Your task to perform on an android device: turn on priority inbox in the gmail app Image 0: 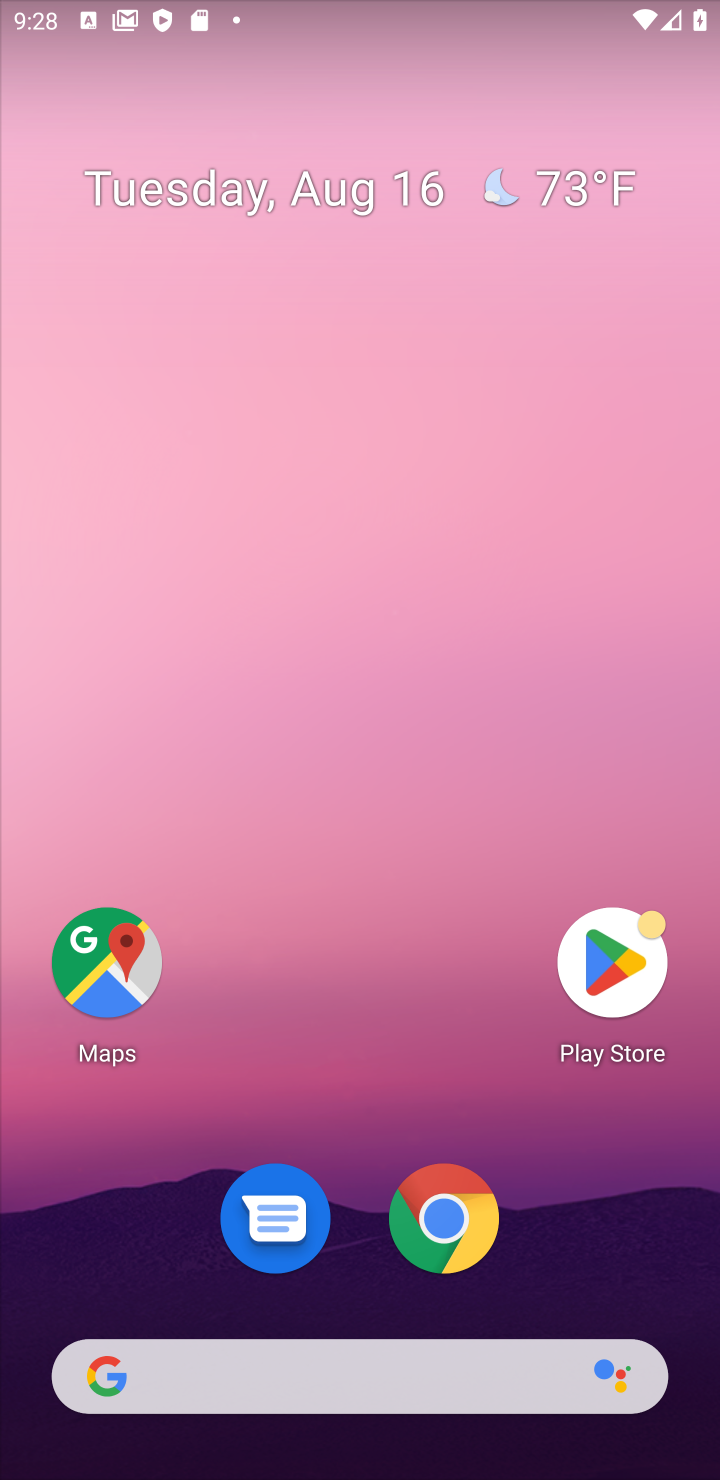
Step 0: drag from (345, 1272) to (450, 278)
Your task to perform on an android device: turn on priority inbox in the gmail app Image 1: 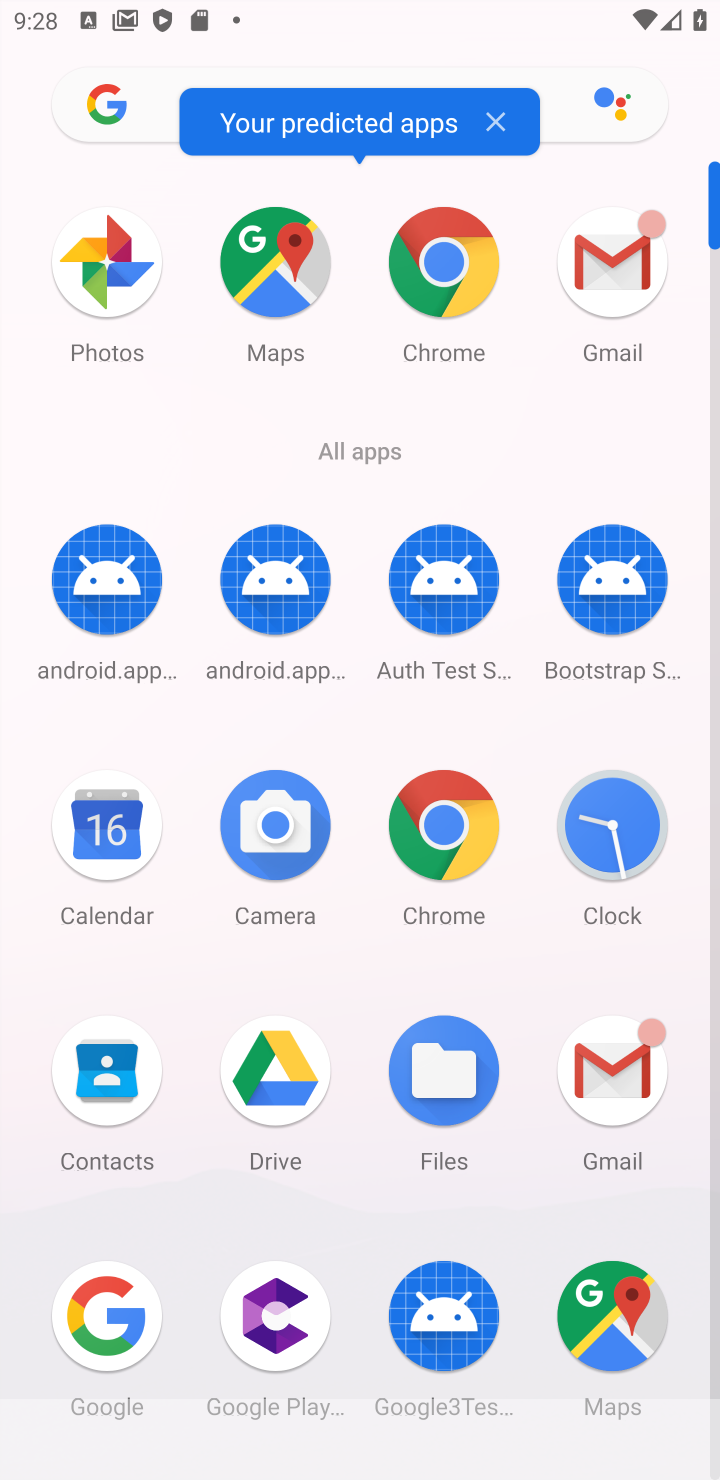
Step 1: click (615, 1098)
Your task to perform on an android device: turn on priority inbox in the gmail app Image 2: 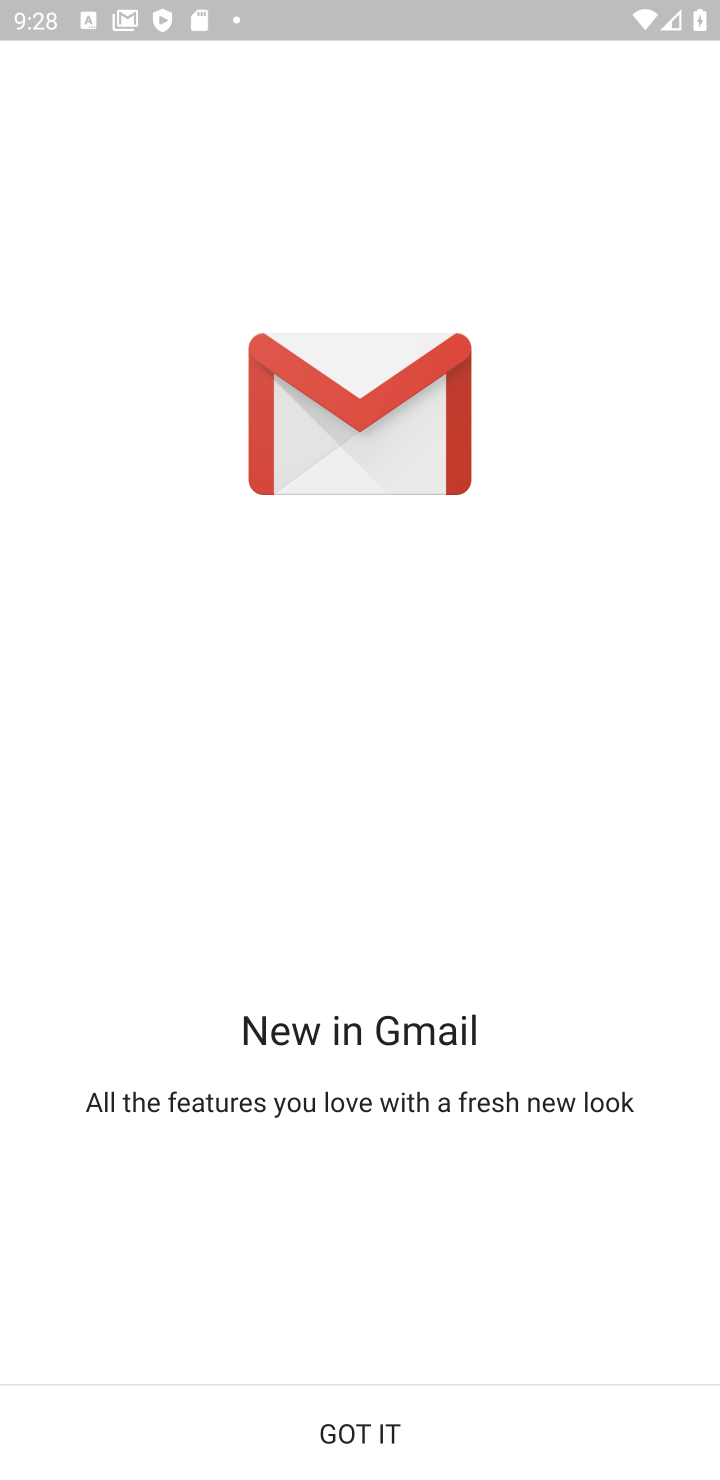
Step 2: click (467, 1446)
Your task to perform on an android device: turn on priority inbox in the gmail app Image 3: 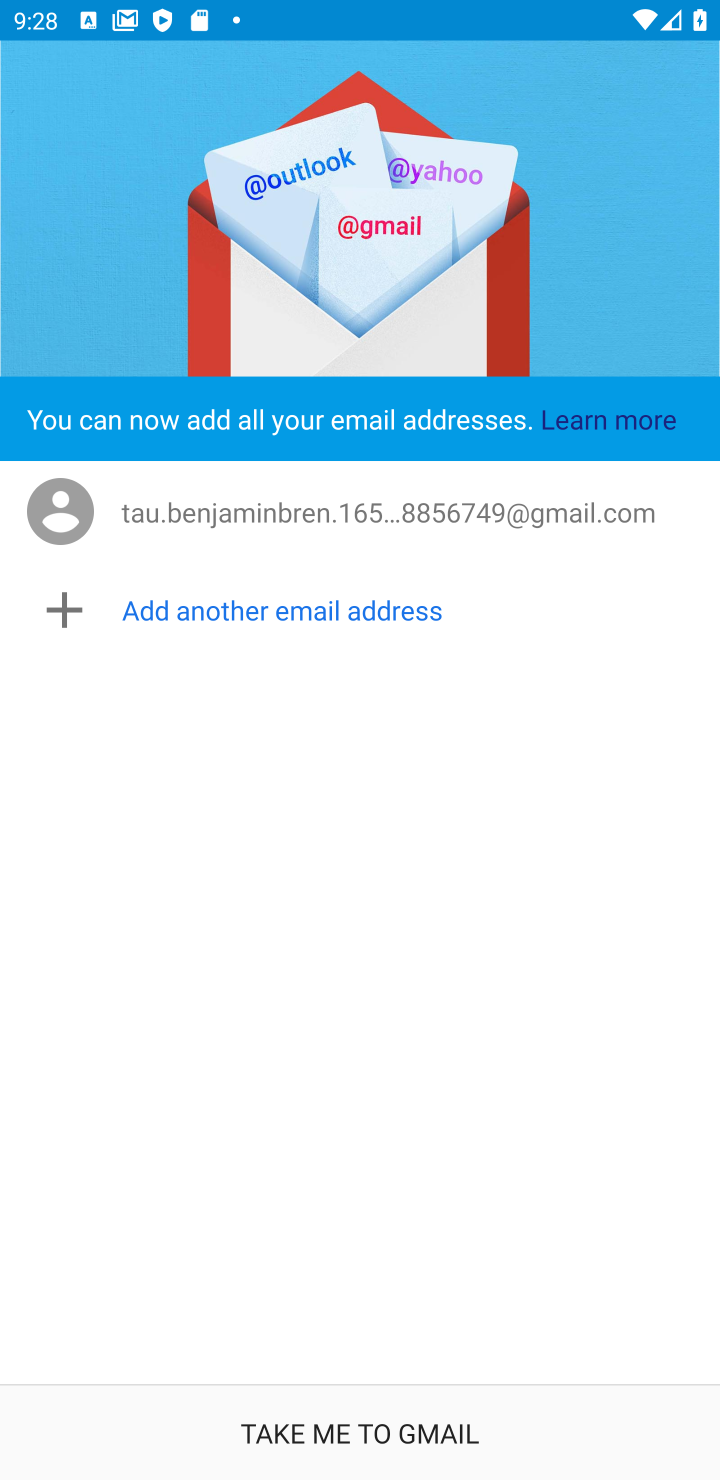
Step 3: click (467, 1446)
Your task to perform on an android device: turn on priority inbox in the gmail app Image 4: 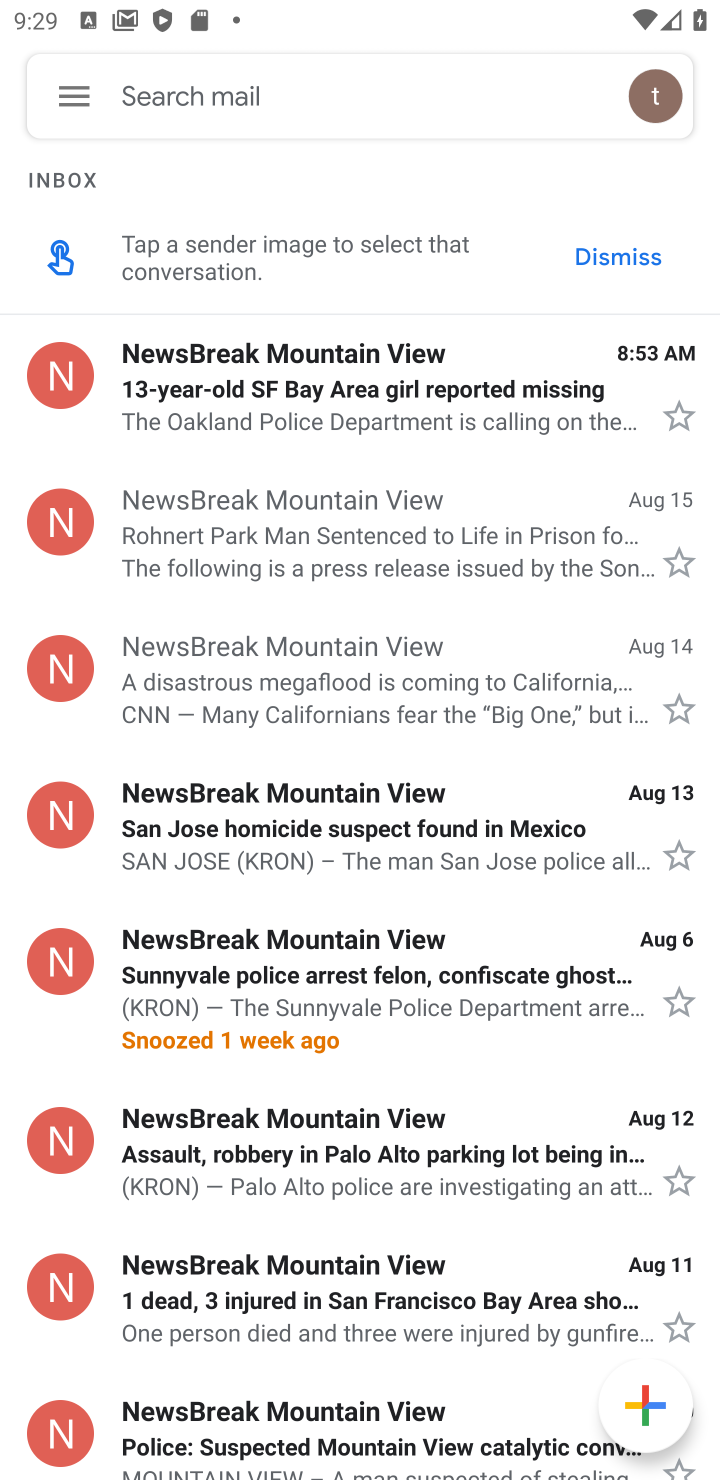
Step 4: click (70, 388)
Your task to perform on an android device: turn on priority inbox in the gmail app Image 5: 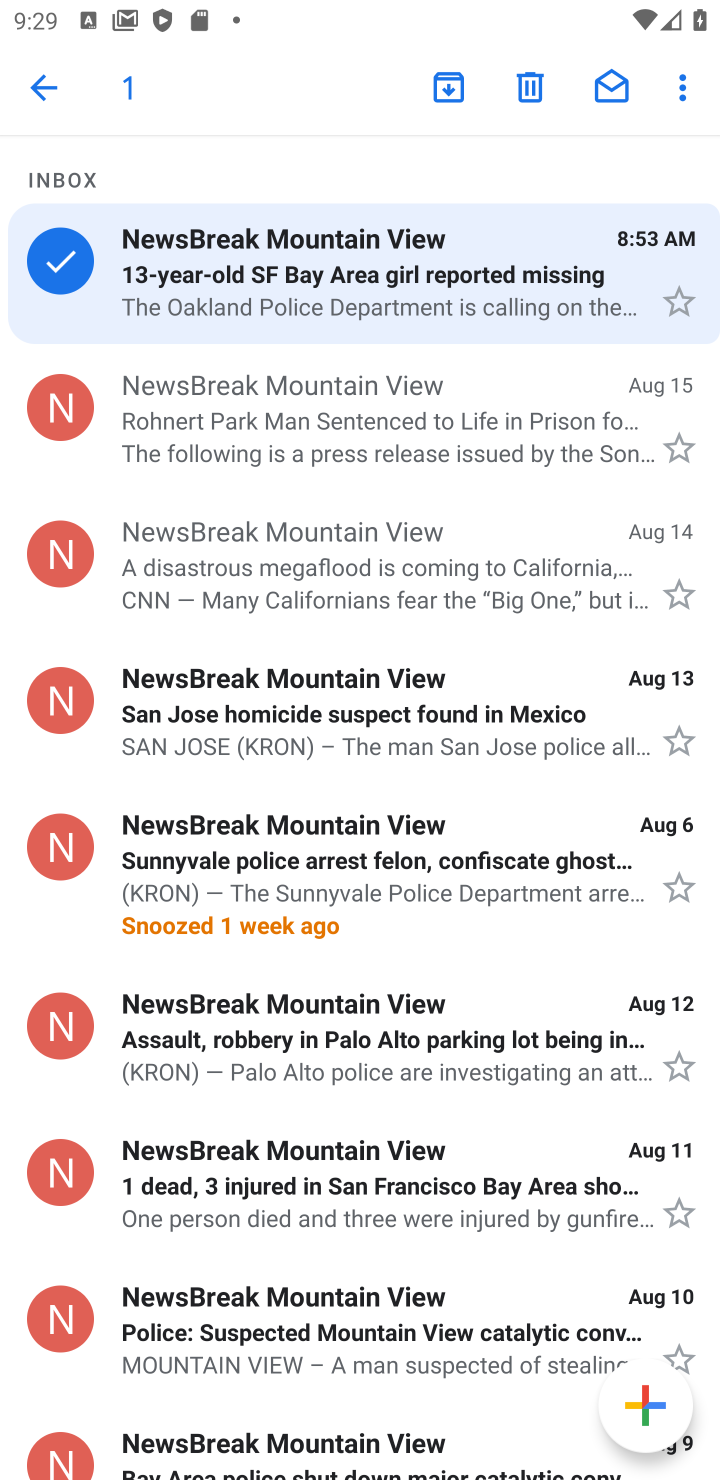
Step 5: click (691, 81)
Your task to perform on an android device: turn on priority inbox in the gmail app Image 6: 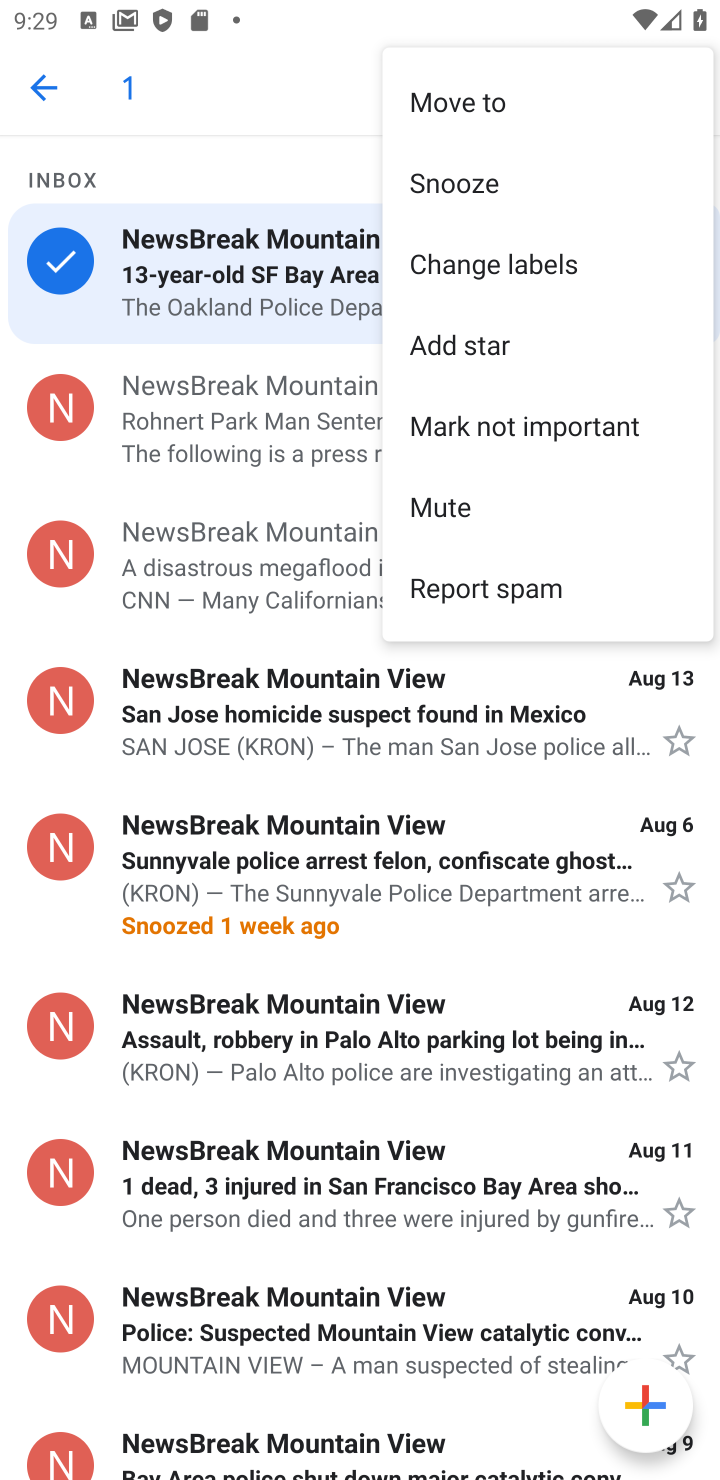
Step 6: click (37, 74)
Your task to perform on an android device: turn on priority inbox in the gmail app Image 7: 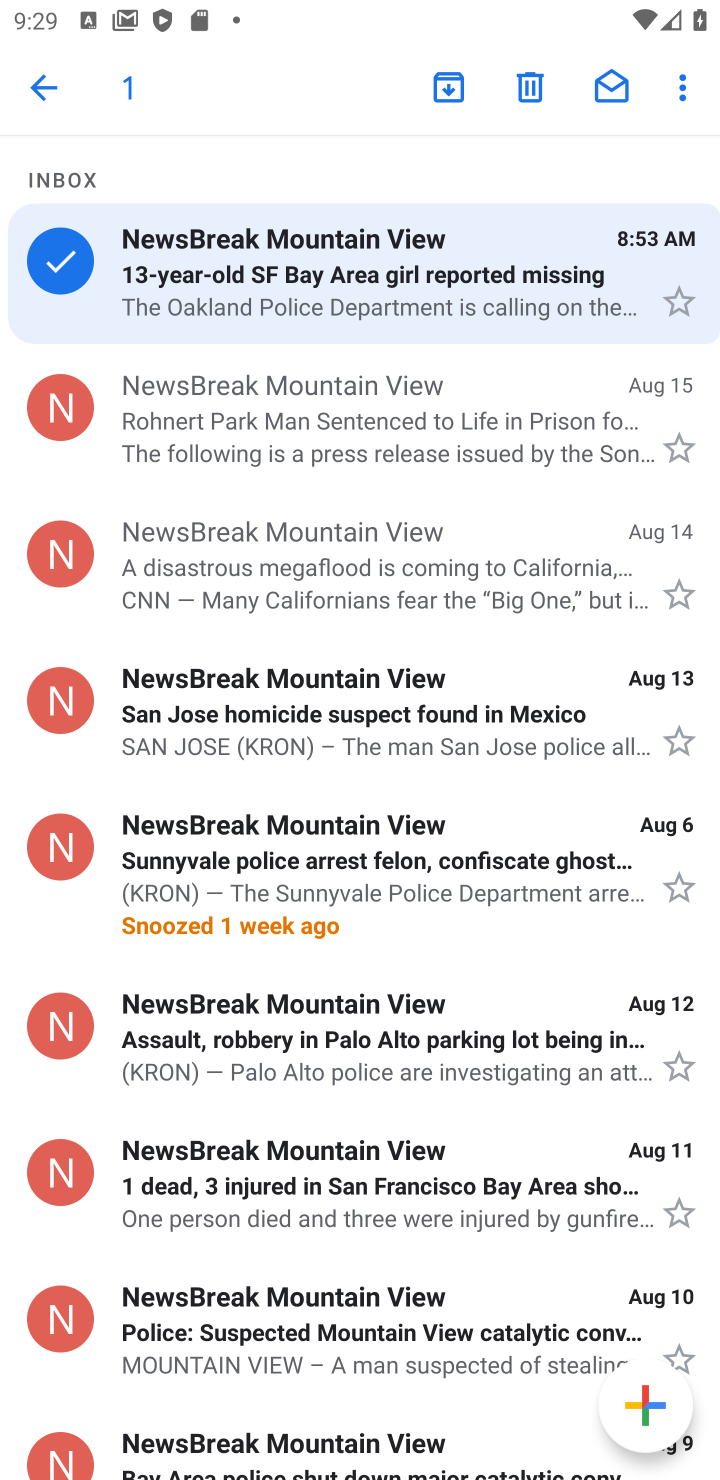
Step 7: click (37, 81)
Your task to perform on an android device: turn on priority inbox in the gmail app Image 8: 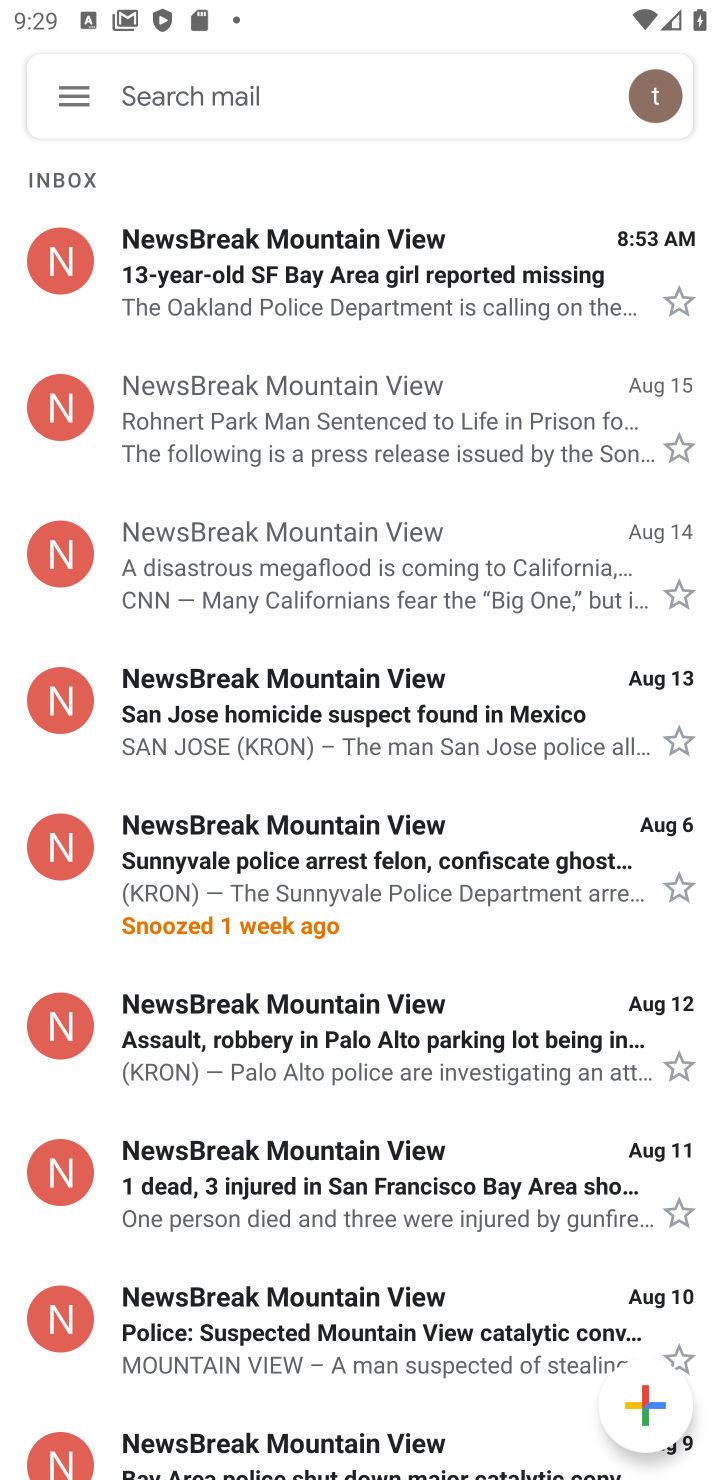
Step 8: click (72, 95)
Your task to perform on an android device: turn on priority inbox in the gmail app Image 9: 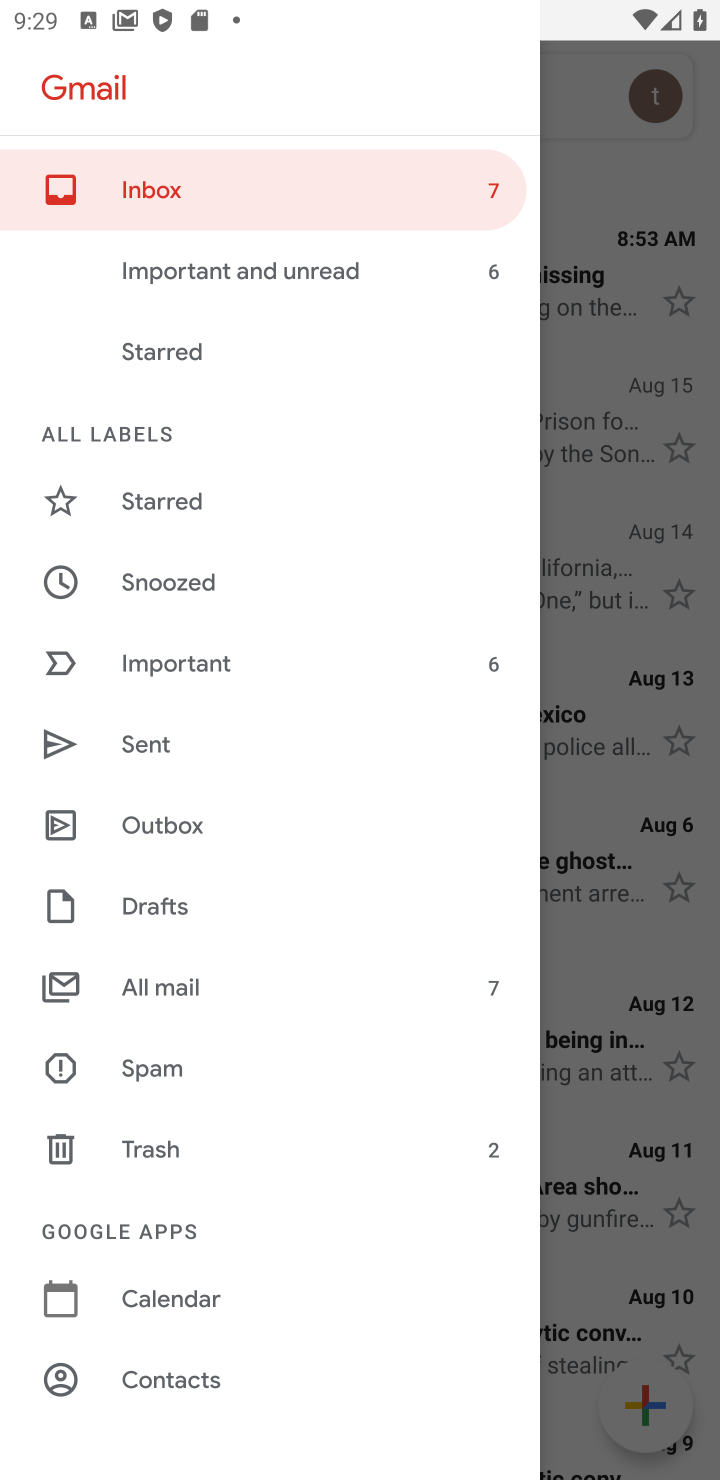
Step 9: drag from (200, 1426) to (113, 103)
Your task to perform on an android device: turn on priority inbox in the gmail app Image 10: 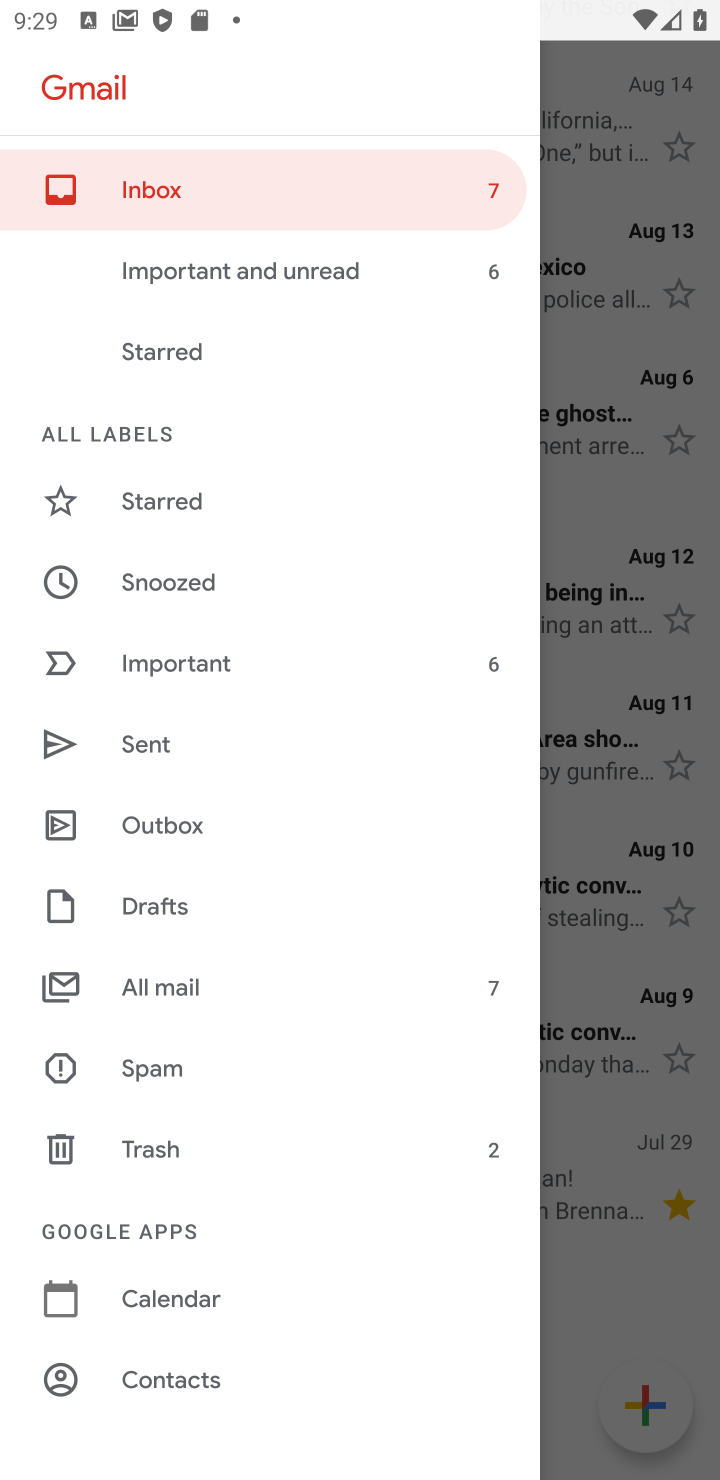
Step 10: drag from (126, 1416) to (378, 325)
Your task to perform on an android device: turn on priority inbox in the gmail app Image 11: 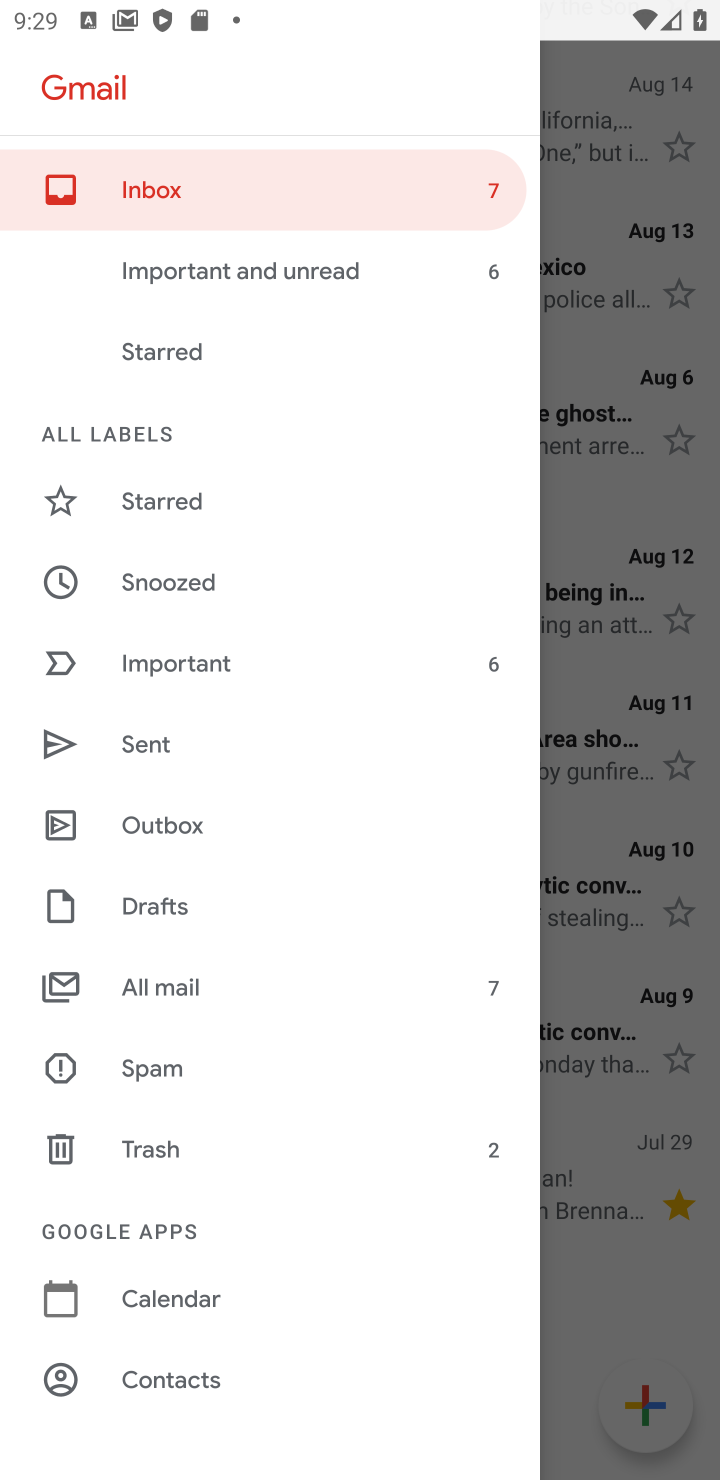
Step 11: drag from (110, 1417) to (269, 280)
Your task to perform on an android device: turn on priority inbox in the gmail app Image 12: 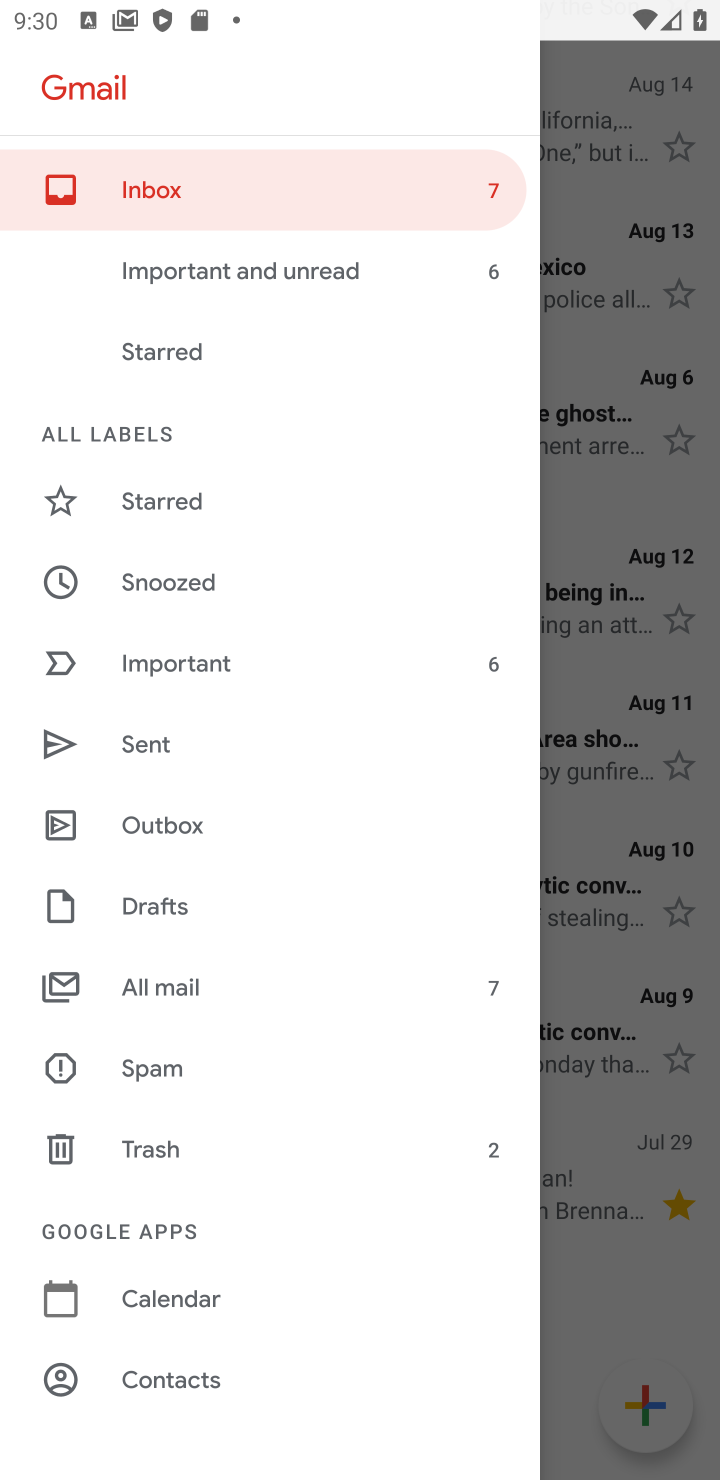
Step 12: drag from (139, 1390) to (378, 417)
Your task to perform on an android device: turn on priority inbox in the gmail app Image 13: 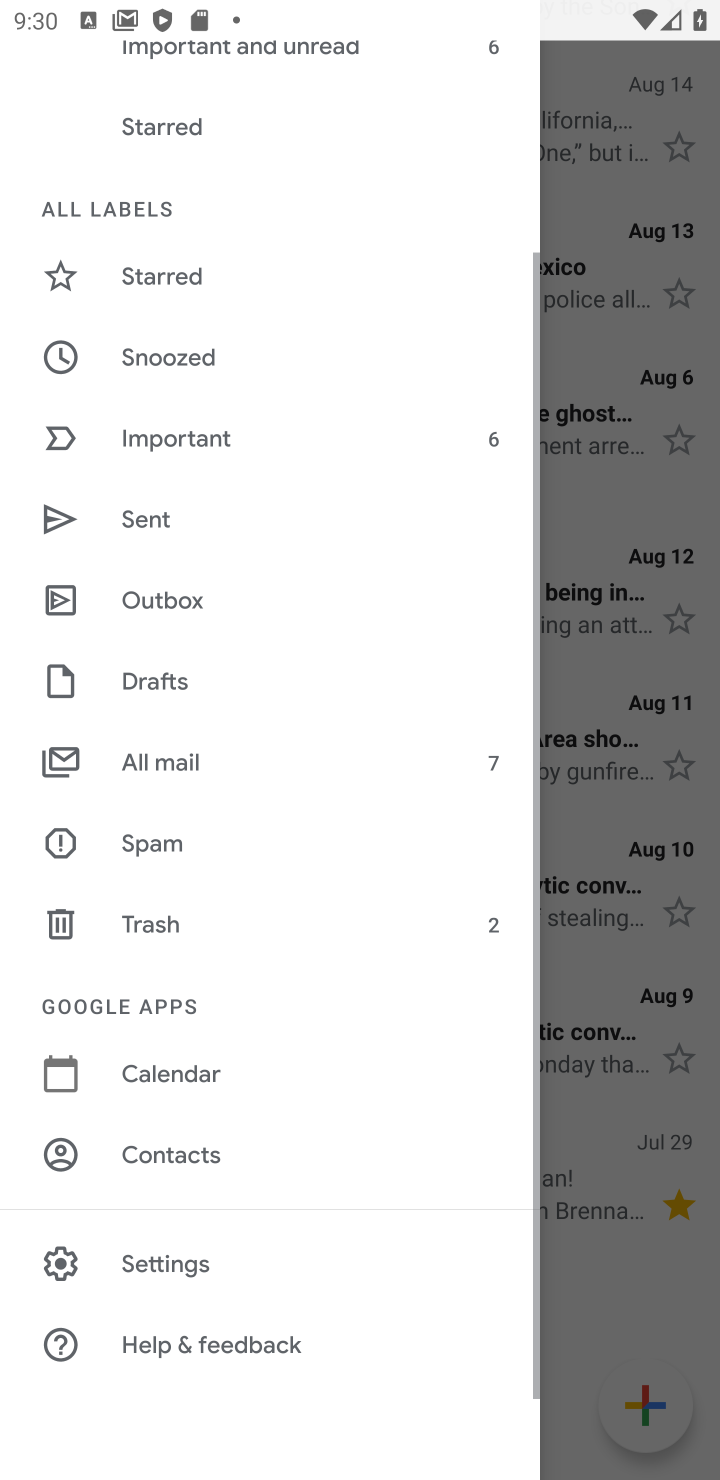
Step 13: click (304, 1293)
Your task to perform on an android device: turn on priority inbox in the gmail app Image 14: 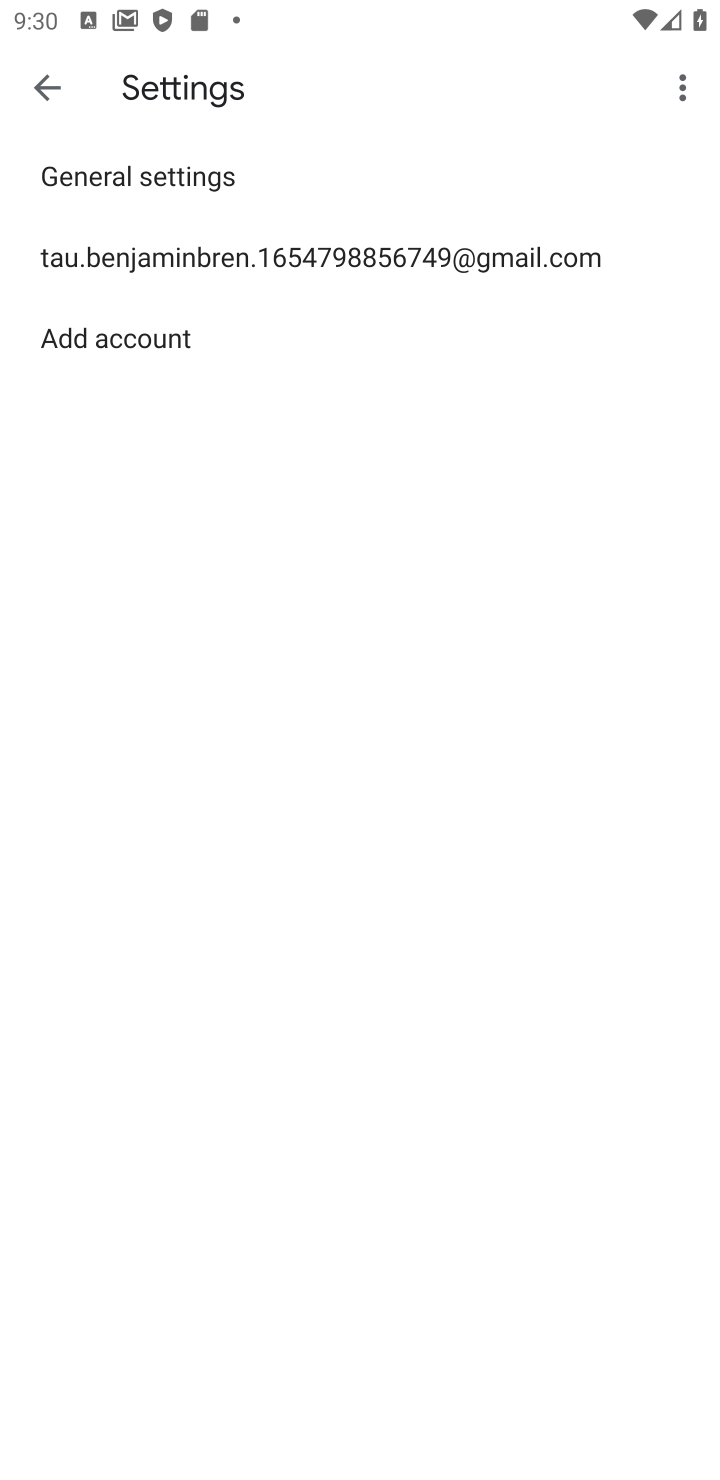
Step 14: click (192, 252)
Your task to perform on an android device: turn on priority inbox in the gmail app Image 15: 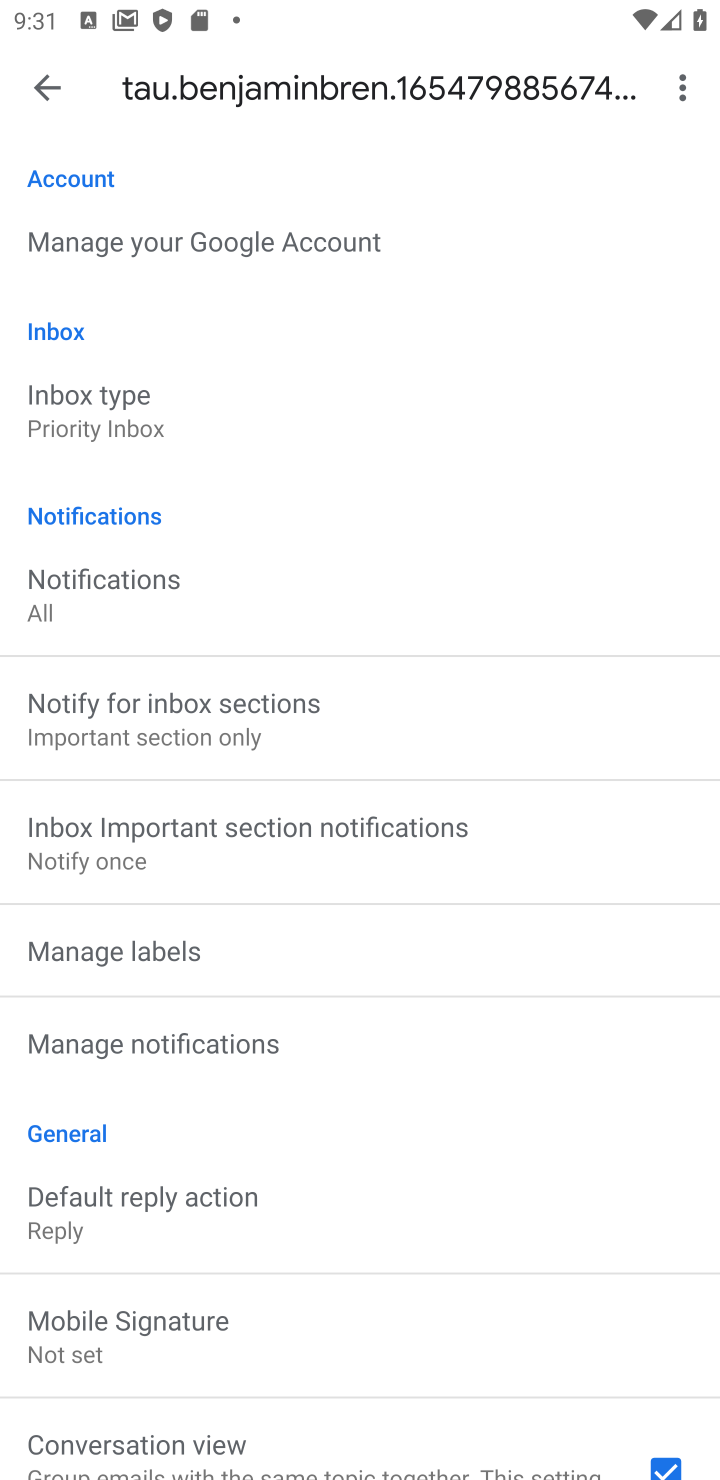
Step 15: task complete